Your task to perform on an android device: toggle notification dots Image 0: 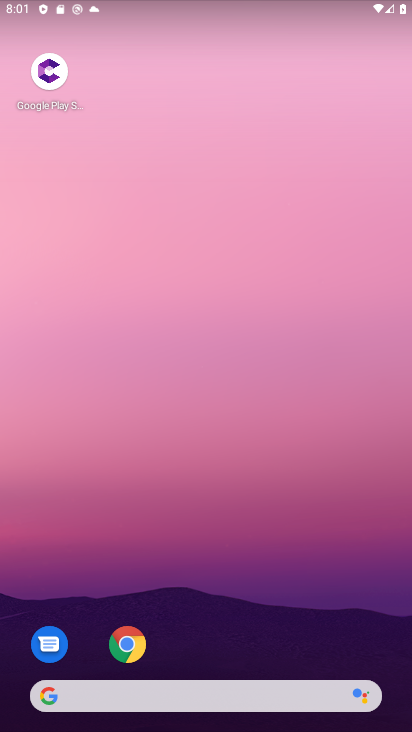
Step 0: drag from (361, 611) to (301, 51)
Your task to perform on an android device: toggle notification dots Image 1: 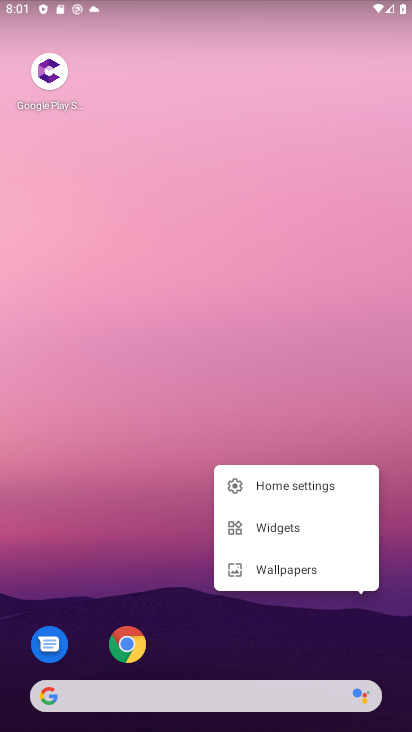
Step 1: drag from (170, 464) to (192, 91)
Your task to perform on an android device: toggle notification dots Image 2: 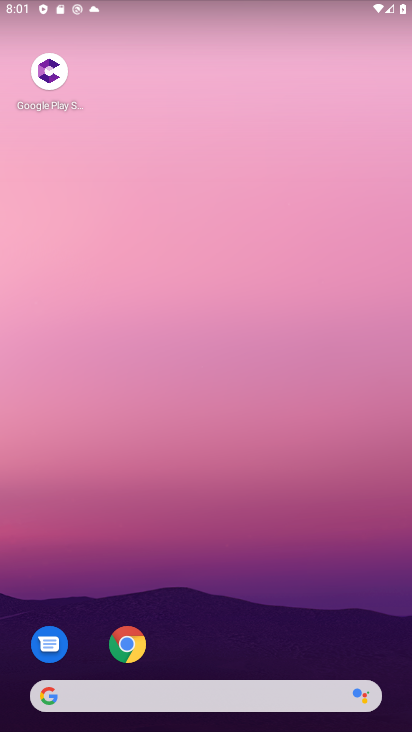
Step 2: drag from (310, 658) to (262, 63)
Your task to perform on an android device: toggle notification dots Image 3: 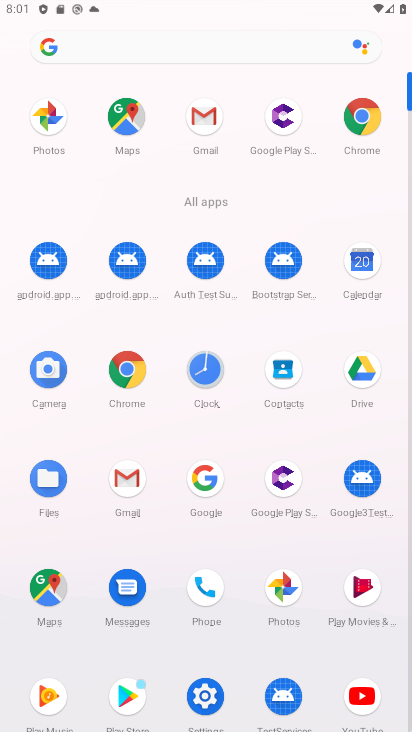
Step 3: click (208, 692)
Your task to perform on an android device: toggle notification dots Image 4: 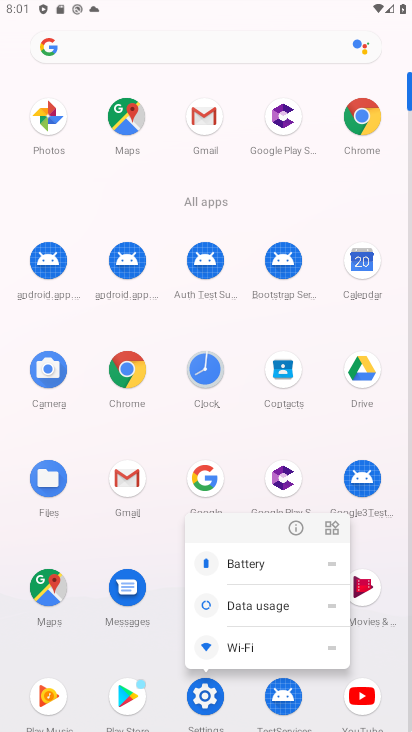
Step 4: click (290, 531)
Your task to perform on an android device: toggle notification dots Image 5: 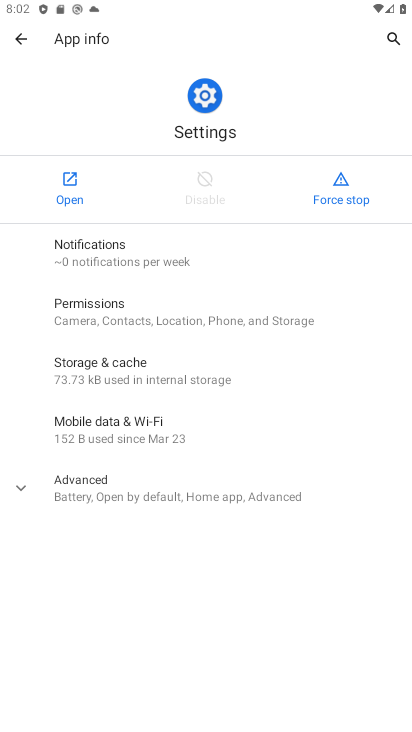
Step 5: drag from (168, 261) to (162, 419)
Your task to perform on an android device: toggle notification dots Image 6: 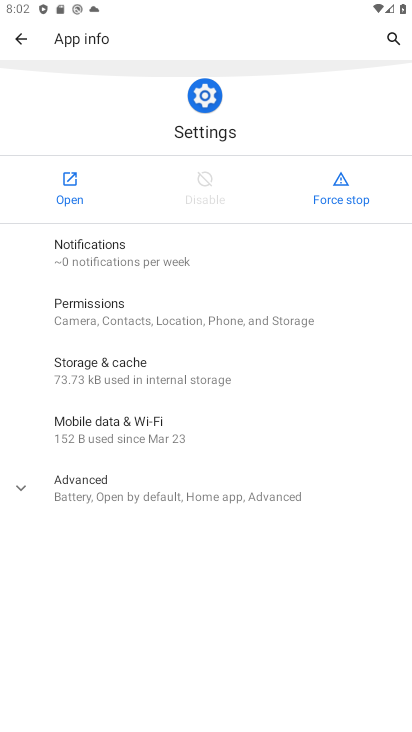
Step 6: click (144, 252)
Your task to perform on an android device: toggle notification dots Image 7: 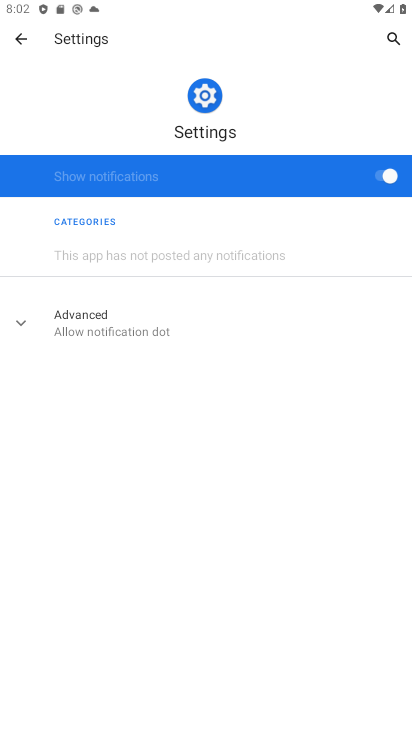
Step 7: click (121, 310)
Your task to perform on an android device: toggle notification dots Image 8: 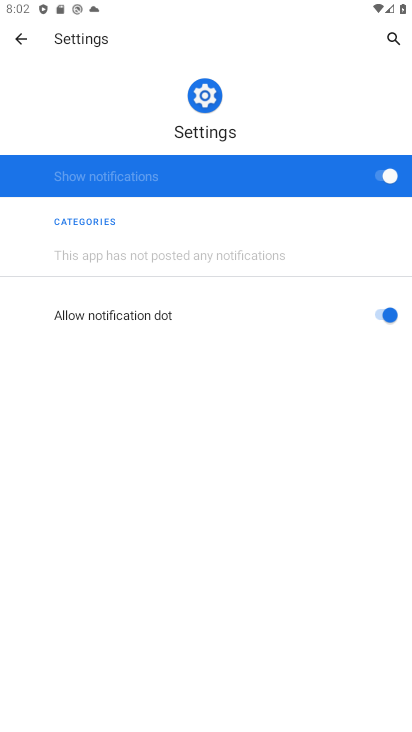
Step 8: click (312, 313)
Your task to perform on an android device: toggle notification dots Image 9: 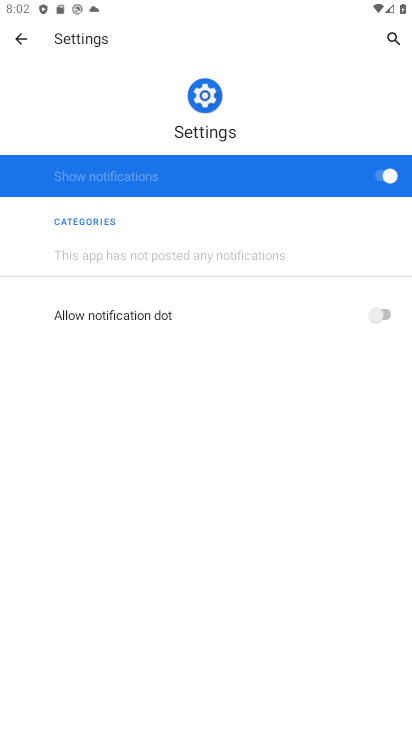
Step 9: task complete